Your task to perform on an android device: toggle airplane mode Image 0: 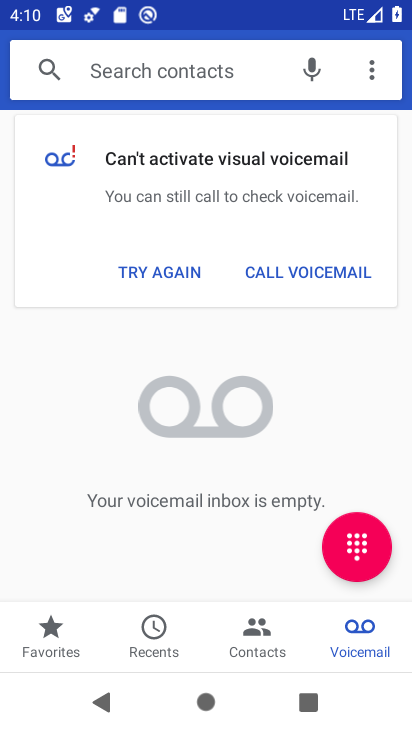
Step 0: press home button
Your task to perform on an android device: toggle airplane mode Image 1: 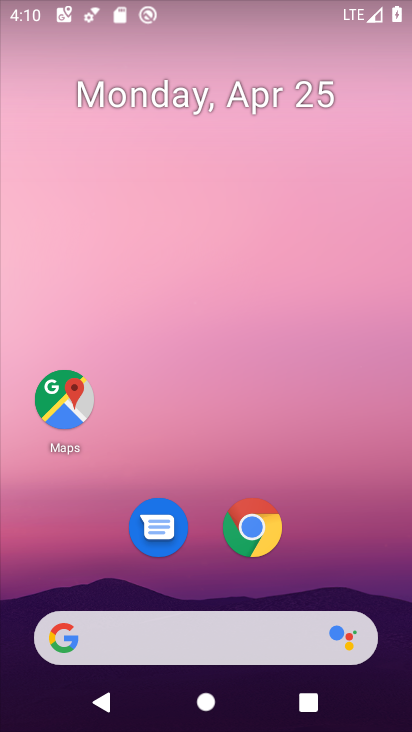
Step 1: drag from (385, 621) to (329, 72)
Your task to perform on an android device: toggle airplane mode Image 2: 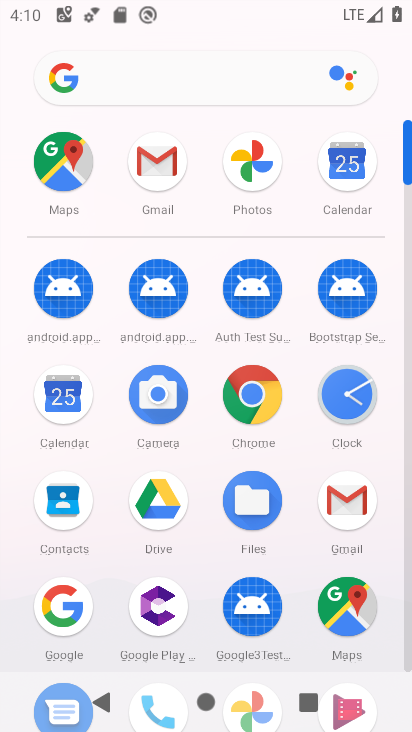
Step 2: click (407, 650)
Your task to perform on an android device: toggle airplane mode Image 3: 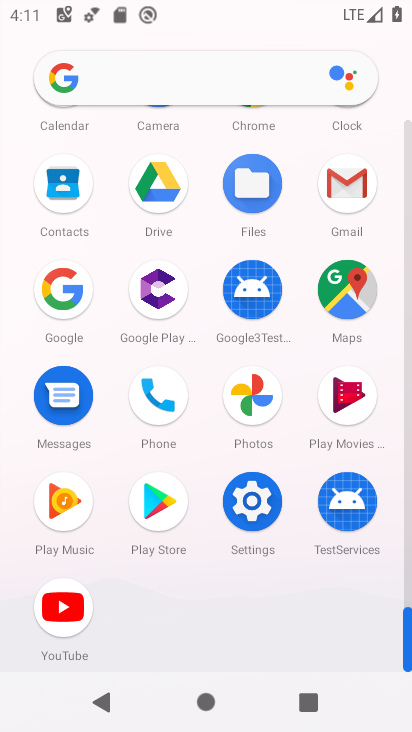
Step 3: click (253, 500)
Your task to perform on an android device: toggle airplane mode Image 4: 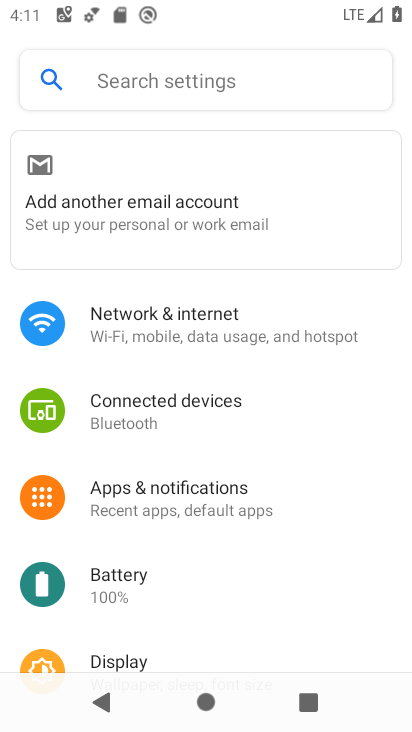
Step 4: click (186, 318)
Your task to perform on an android device: toggle airplane mode Image 5: 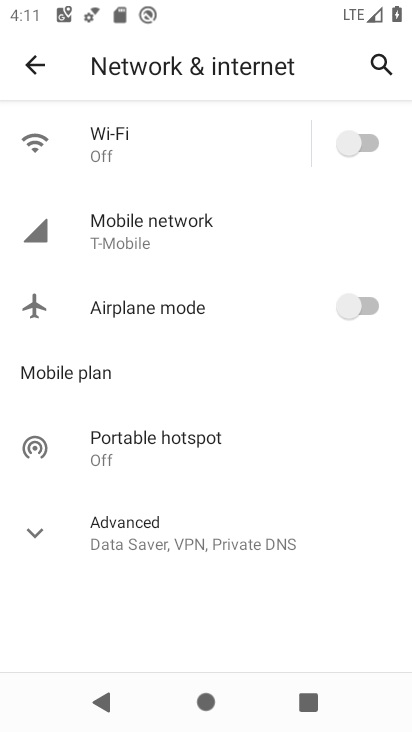
Step 5: click (366, 308)
Your task to perform on an android device: toggle airplane mode Image 6: 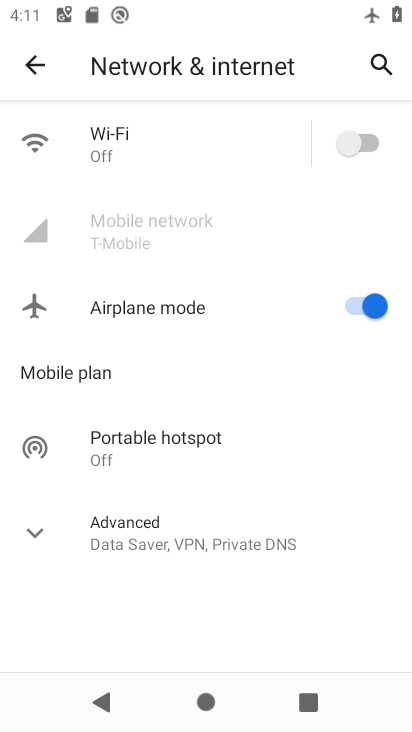
Step 6: task complete